Your task to perform on an android device: Show me popular games on the Play Store Image 0: 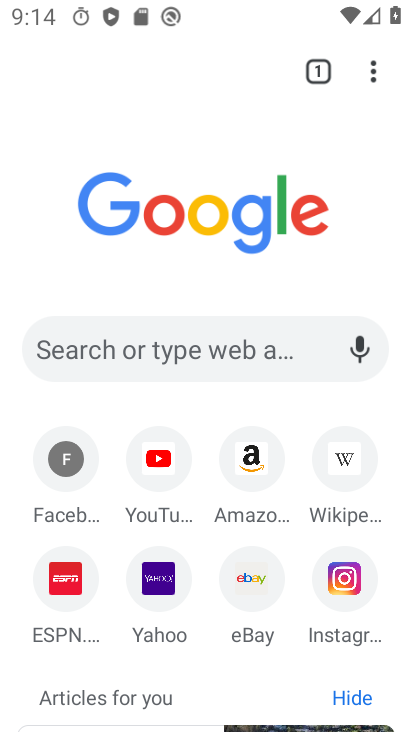
Step 0: press back button
Your task to perform on an android device: Show me popular games on the Play Store Image 1: 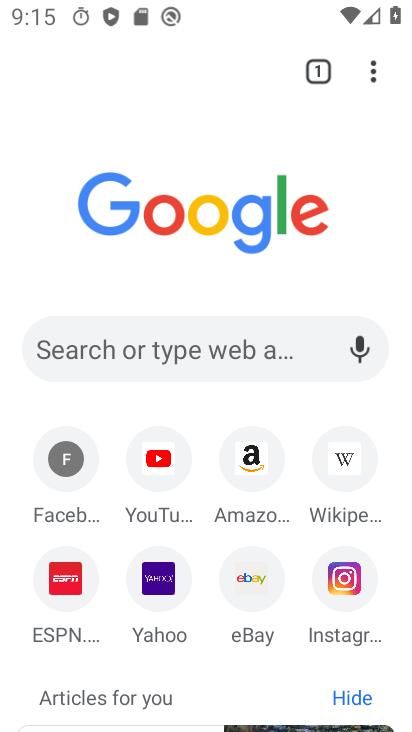
Step 1: press back button
Your task to perform on an android device: Show me popular games on the Play Store Image 2: 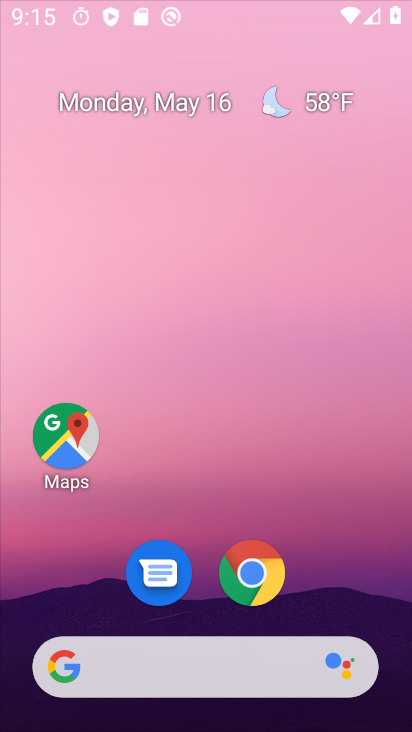
Step 2: press back button
Your task to perform on an android device: Show me popular games on the Play Store Image 3: 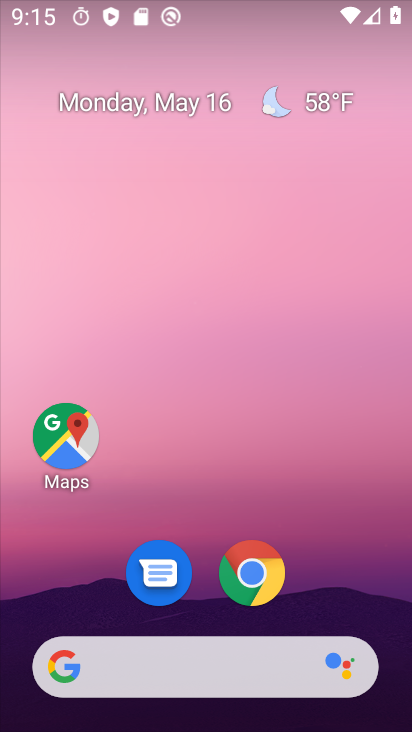
Step 3: drag from (323, 607) to (188, 35)
Your task to perform on an android device: Show me popular games on the Play Store Image 4: 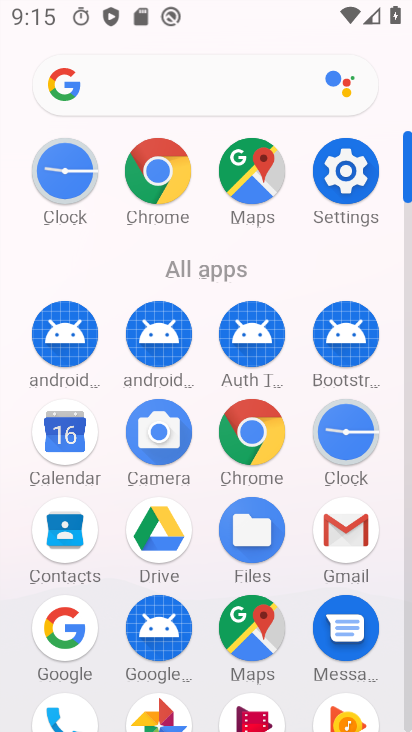
Step 4: drag from (217, 569) to (204, 106)
Your task to perform on an android device: Show me popular games on the Play Store Image 5: 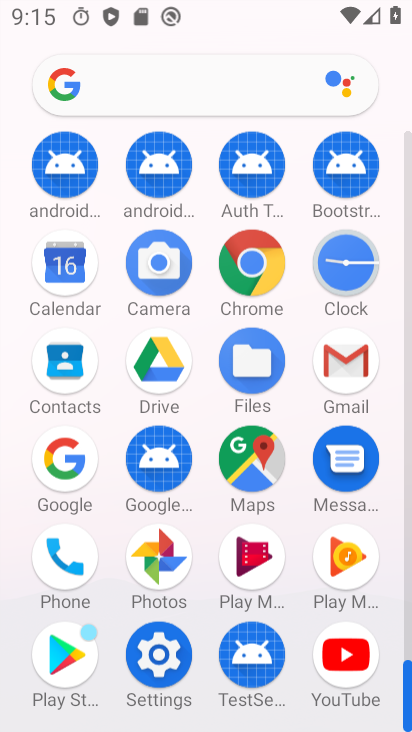
Step 5: drag from (211, 459) to (197, 48)
Your task to perform on an android device: Show me popular games on the Play Store Image 6: 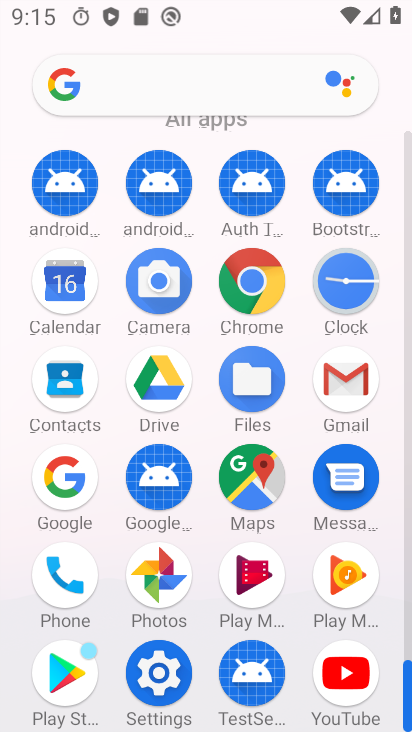
Step 6: click (66, 657)
Your task to perform on an android device: Show me popular games on the Play Store Image 7: 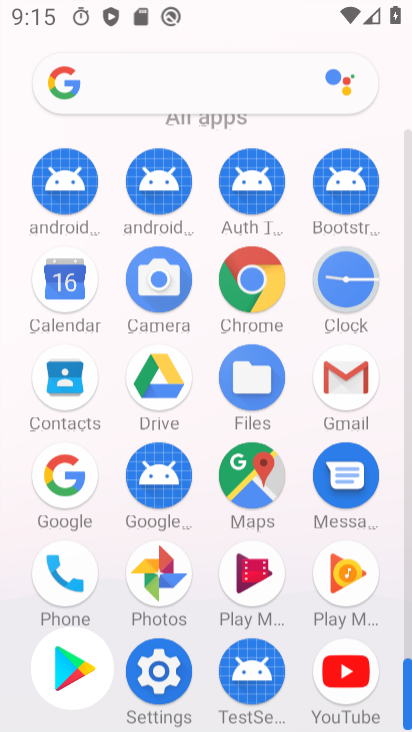
Step 7: click (66, 670)
Your task to perform on an android device: Show me popular games on the Play Store Image 8: 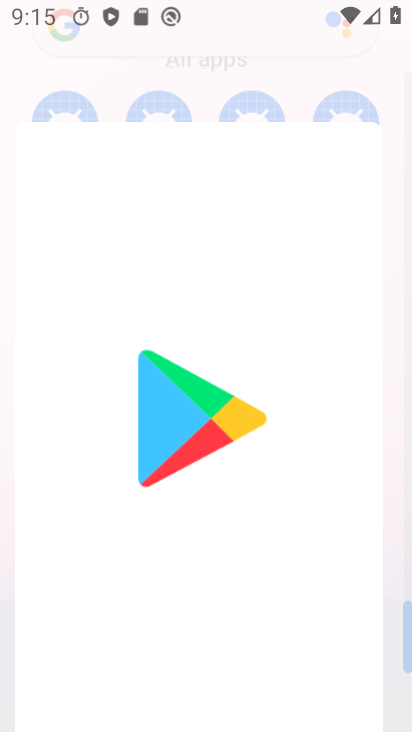
Step 8: click (66, 670)
Your task to perform on an android device: Show me popular games on the Play Store Image 9: 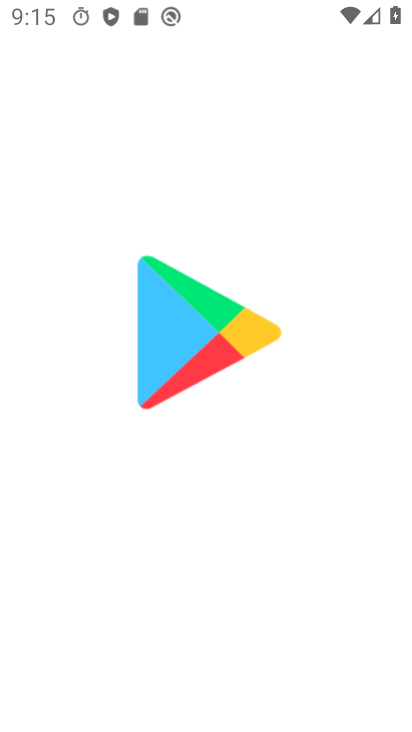
Step 9: click (66, 670)
Your task to perform on an android device: Show me popular games on the Play Store Image 10: 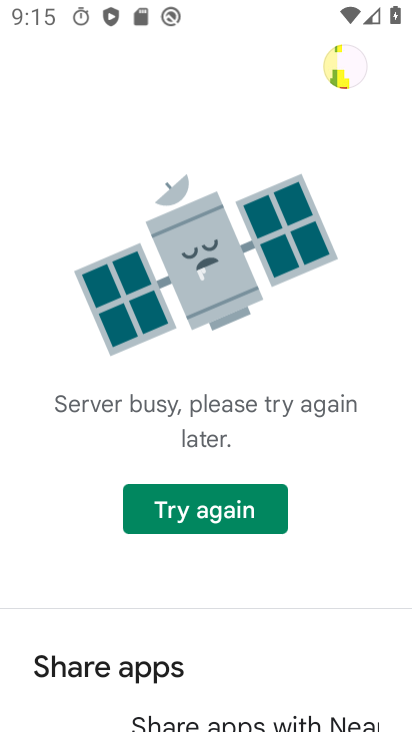
Step 10: task complete